Your task to perform on an android device: Open calendar and show me the second week of next month Image 0: 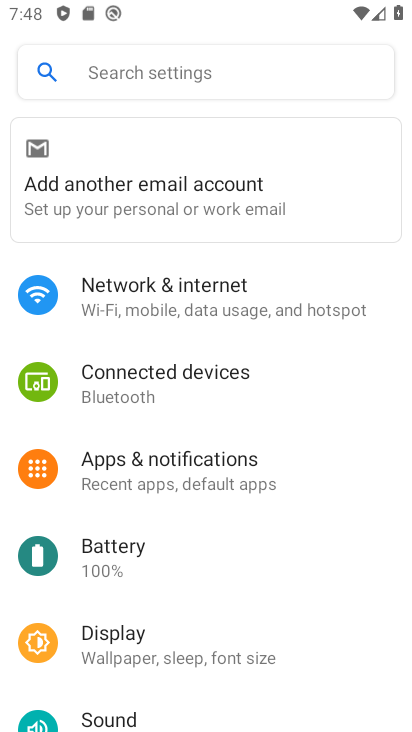
Step 0: press back button
Your task to perform on an android device: Open calendar and show me the second week of next month Image 1: 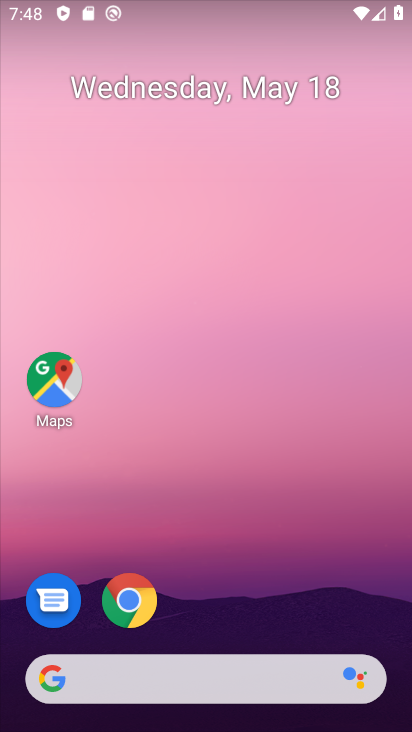
Step 1: click (278, 254)
Your task to perform on an android device: Open calendar and show me the second week of next month Image 2: 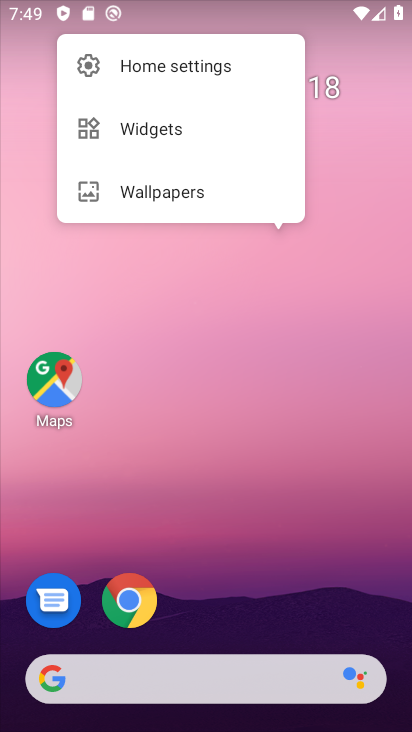
Step 2: click (247, 402)
Your task to perform on an android device: Open calendar and show me the second week of next month Image 3: 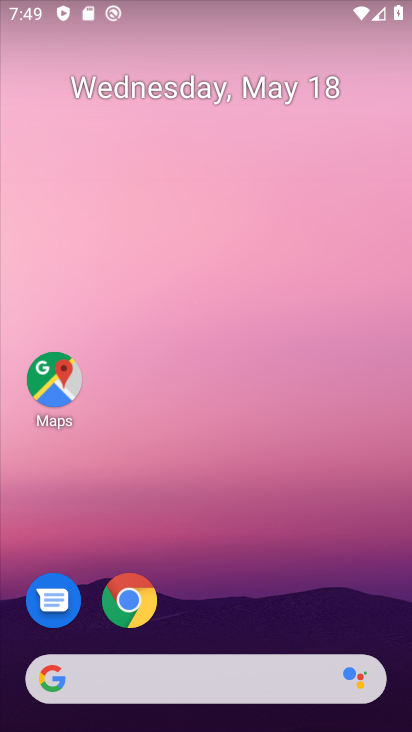
Step 3: drag from (251, 673) to (341, 161)
Your task to perform on an android device: Open calendar and show me the second week of next month Image 4: 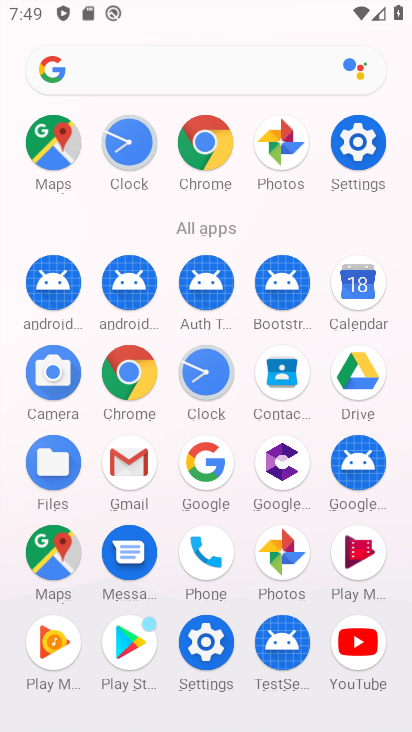
Step 4: click (340, 295)
Your task to perform on an android device: Open calendar and show me the second week of next month Image 5: 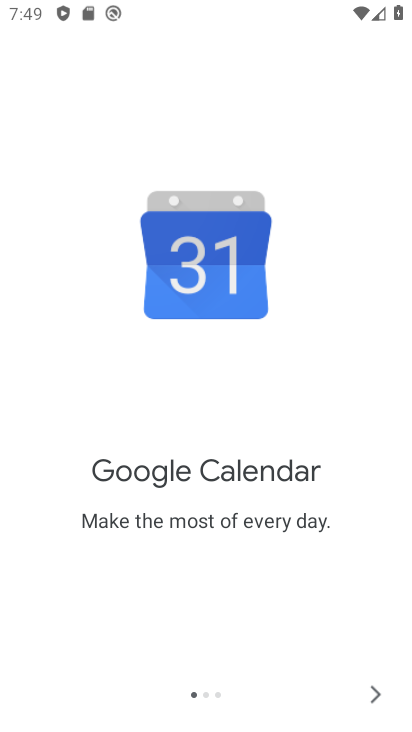
Step 5: click (383, 692)
Your task to perform on an android device: Open calendar and show me the second week of next month Image 6: 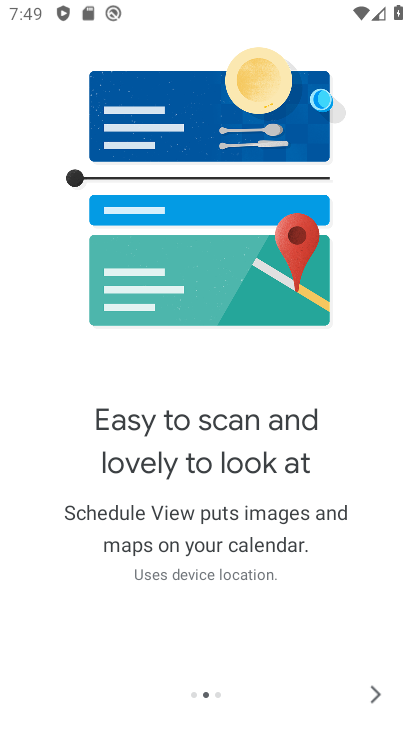
Step 6: click (377, 672)
Your task to perform on an android device: Open calendar and show me the second week of next month Image 7: 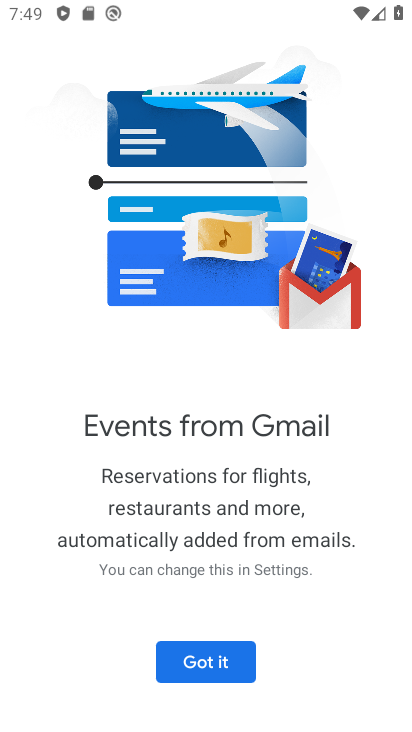
Step 7: click (208, 667)
Your task to perform on an android device: Open calendar and show me the second week of next month Image 8: 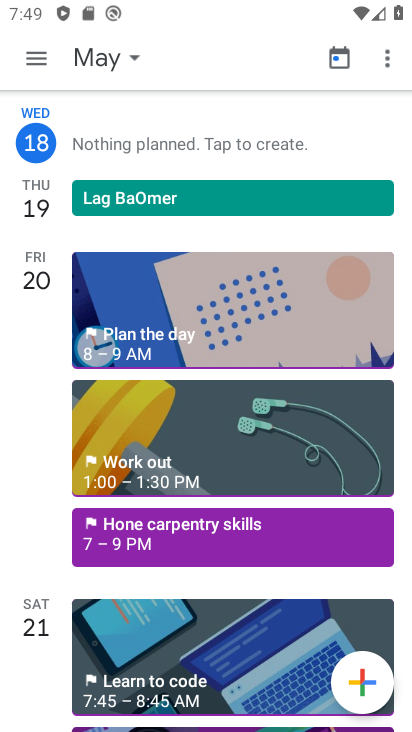
Step 8: click (38, 60)
Your task to perform on an android device: Open calendar and show me the second week of next month Image 9: 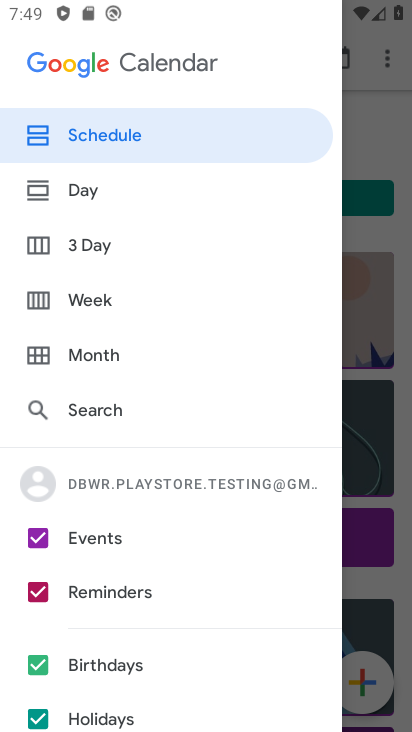
Step 9: click (104, 357)
Your task to perform on an android device: Open calendar and show me the second week of next month Image 10: 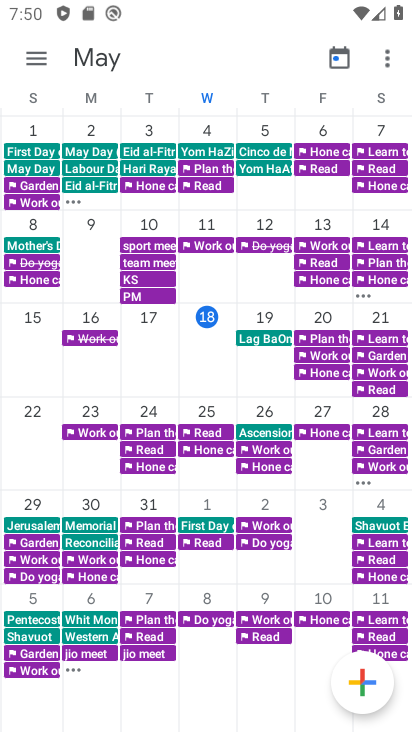
Step 10: drag from (378, 413) to (9, 406)
Your task to perform on an android device: Open calendar and show me the second week of next month Image 11: 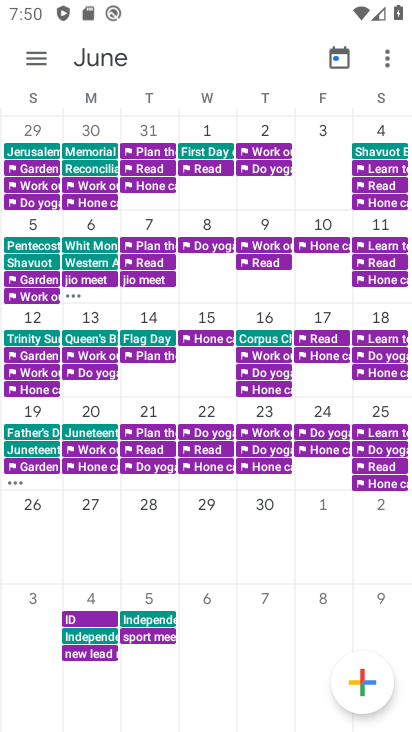
Step 11: click (96, 236)
Your task to perform on an android device: Open calendar and show me the second week of next month Image 12: 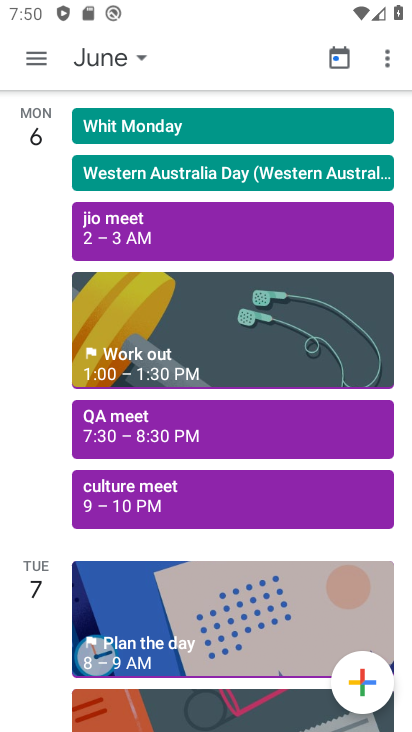
Step 12: task complete